Your task to perform on an android device: change the clock display to show seconds Image 0: 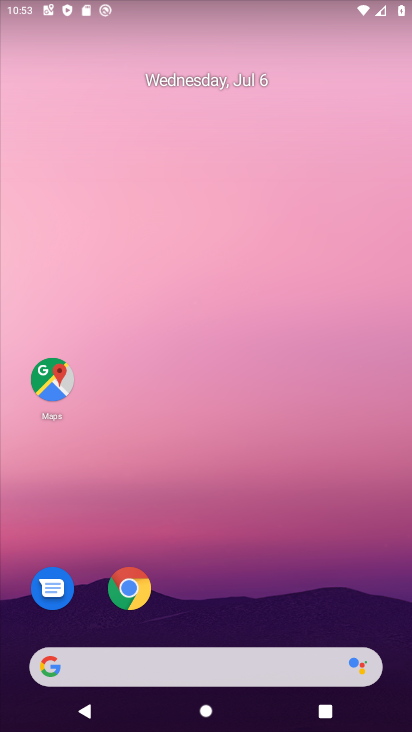
Step 0: drag from (232, 619) to (231, 216)
Your task to perform on an android device: change the clock display to show seconds Image 1: 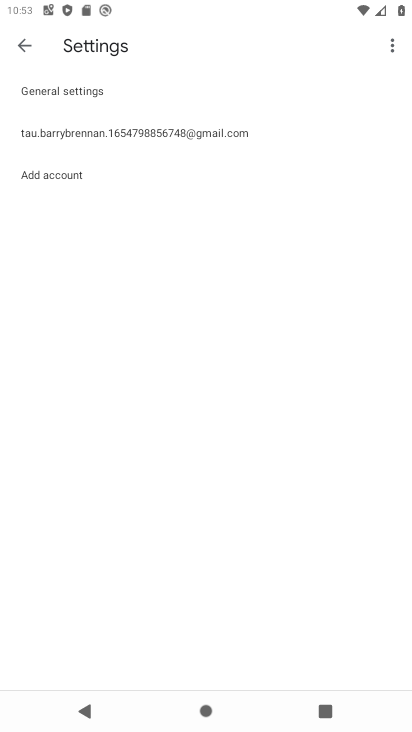
Step 1: press home button
Your task to perform on an android device: change the clock display to show seconds Image 2: 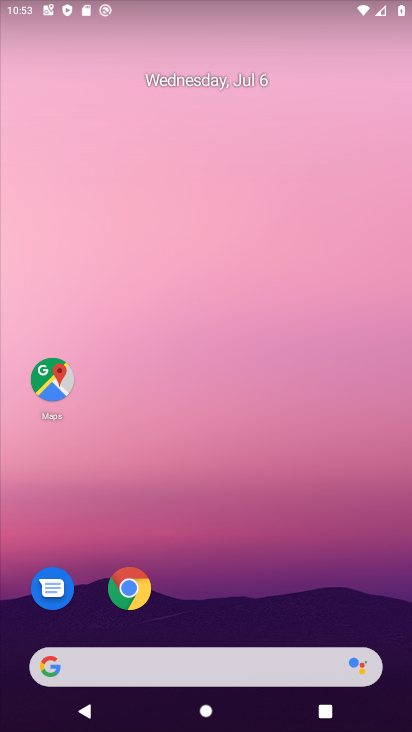
Step 2: drag from (239, 596) to (262, 180)
Your task to perform on an android device: change the clock display to show seconds Image 3: 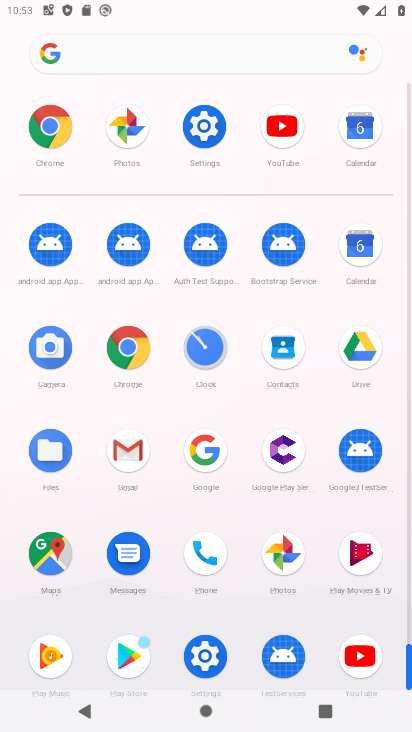
Step 3: click (202, 345)
Your task to perform on an android device: change the clock display to show seconds Image 4: 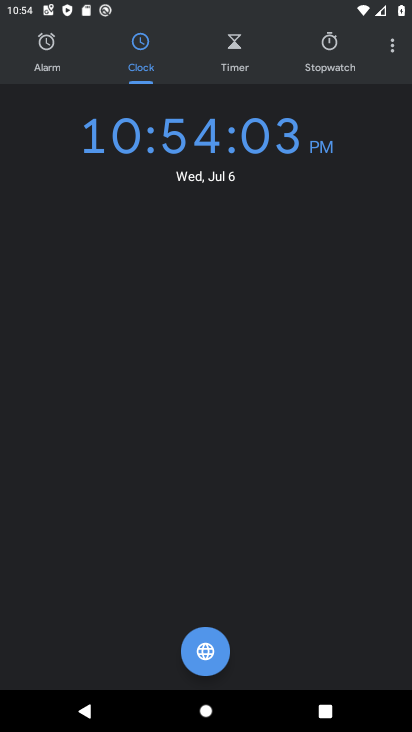
Step 4: click (392, 31)
Your task to perform on an android device: change the clock display to show seconds Image 5: 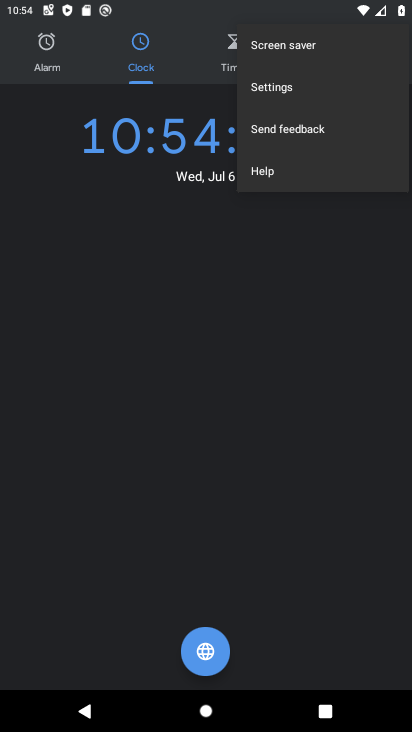
Step 5: click (277, 102)
Your task to perform on an android device: change the clock display to show seconds Image 6: 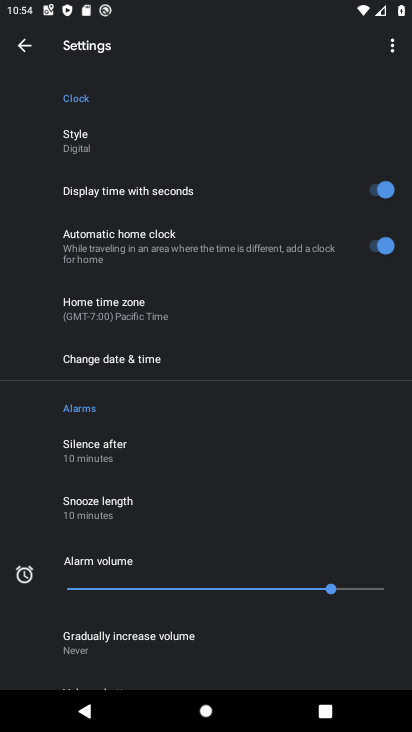
Step 6: task complete